Your task to perform on an android device: Open wifi settings Image 0: 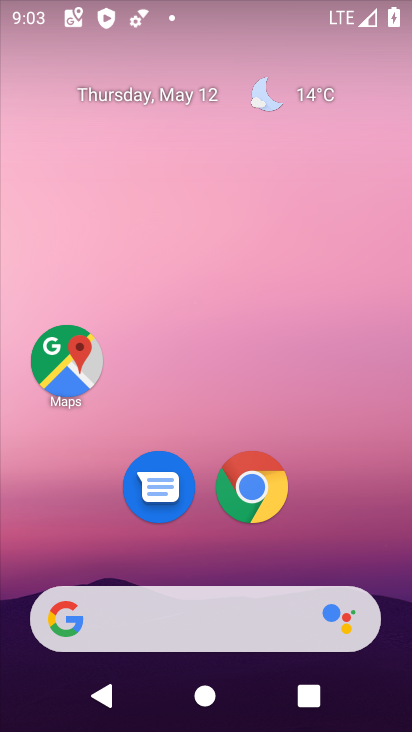
Step 0: drag from (13, 705) to (305, 182)
Your task to perform on an android device: Open wifi settings Image 1: 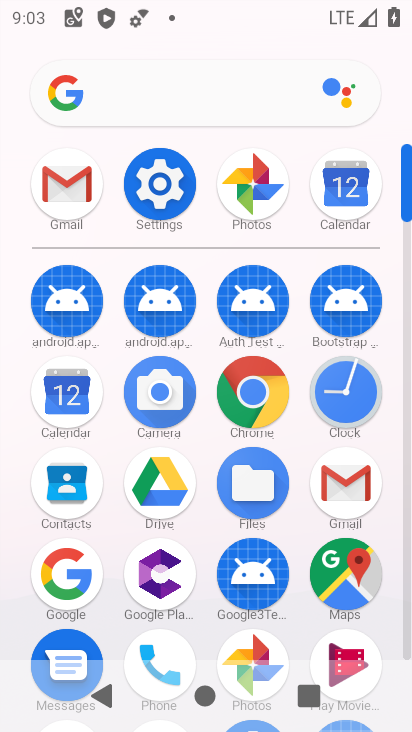
Step 1: click (153, 186)
Your task to perform on an android device: Open wifi settings Image 2: 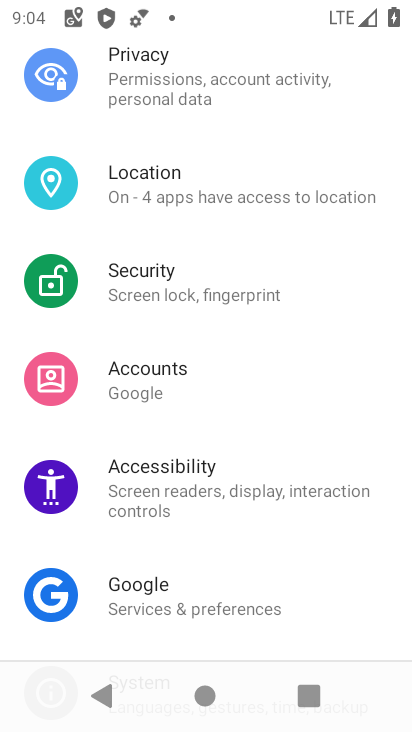
Step 2: drag from (176, 104) to (204, 577)
Your task to perform on an android device: Open wifi settings Image 3: 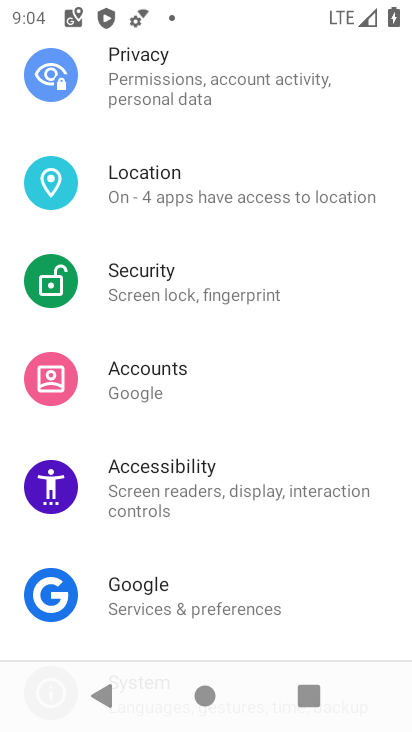
Step 3: drag from (146, 94) to (193, 390)
Your task to perform on an android device: Open wifi settings Image 4: 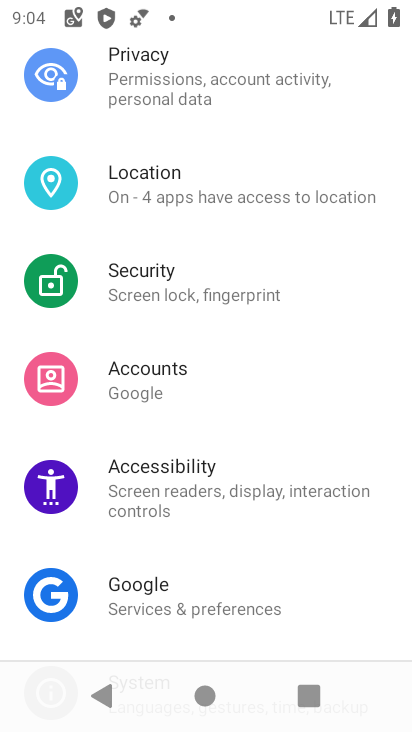
Step 4: drag from (163, 131) to (196, 502)
Your task to perform on an android device: Open wifi settings Image 5: 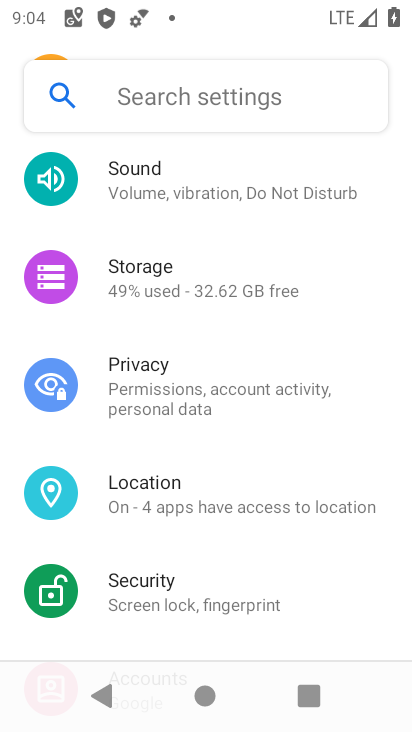
Step 5: drag from (228, 137) to (219, 411)
Your task to perform on an android device: Open wifi settings Image 6: 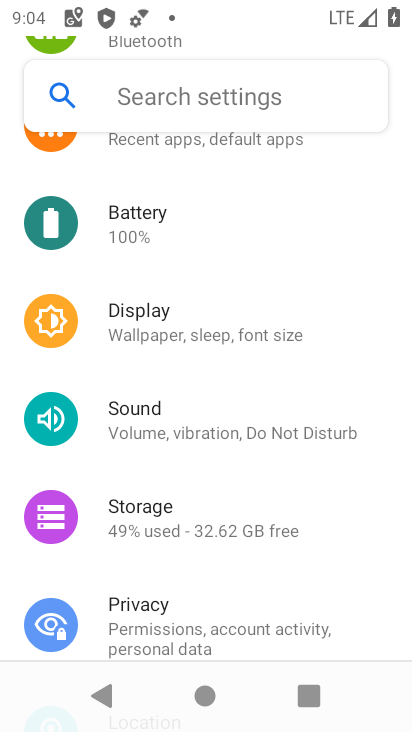
Step 6: drag from (240, 167) to (221, 430)
Your task to perform on an android device: Open wifi settings Image 7: 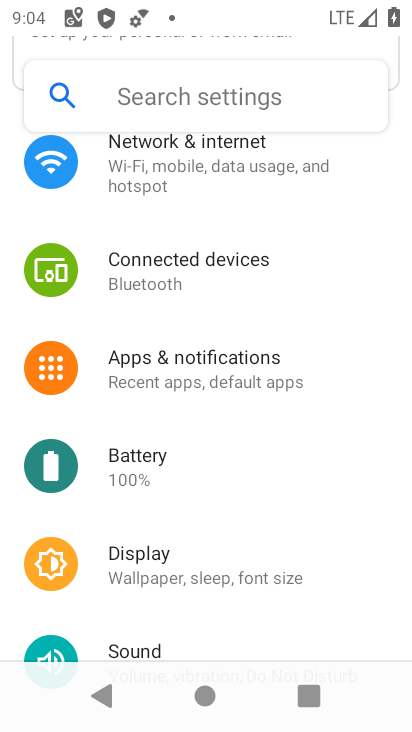
Step 7: drag from (173, 156) to (189, 446)
Your task to perform on an android device: Open wifi settings Image 8: 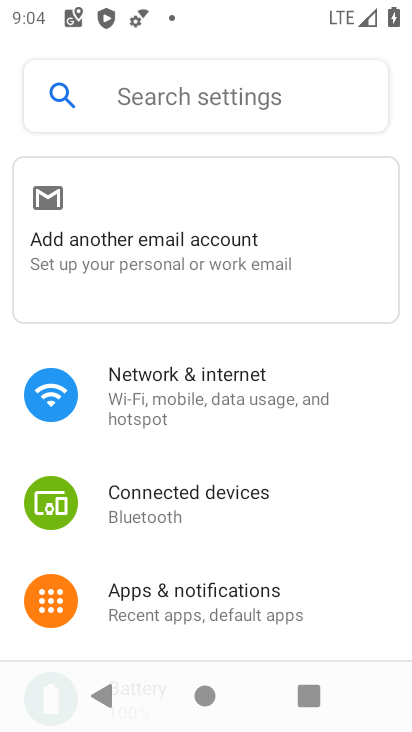
Step 8: click (176, 390)
Your task to perform on an android device: Open wifi settings Image 9: 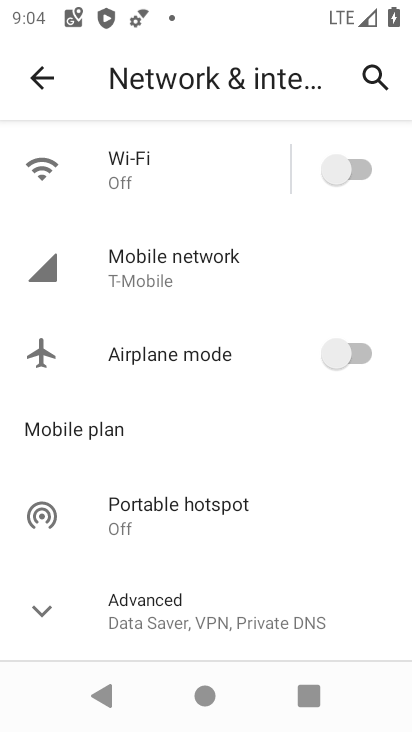
Step 9: click (151, 165)
Your task to perform on an android device: Open wifi settings Image 10: 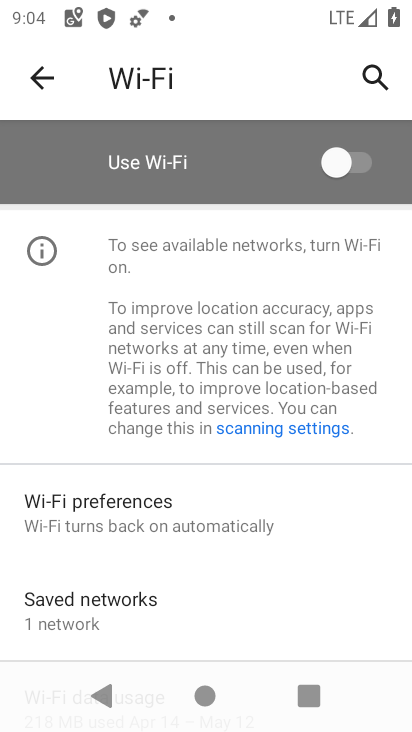
Step 10: task complete